Your task to perform on an android device: Open ESPN.com Image 0: 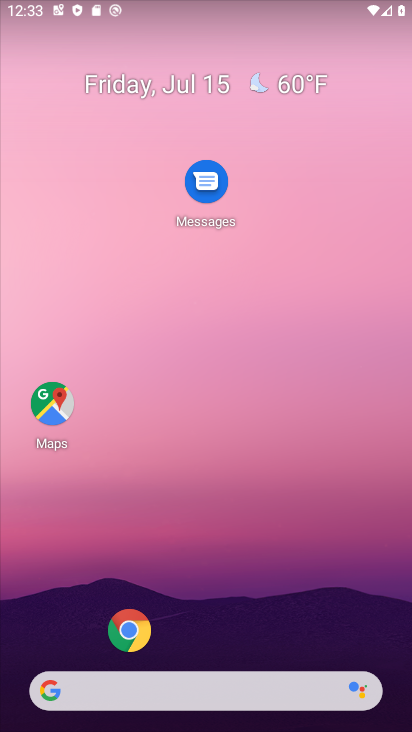
Step 0: drag from (40, 640) to (342, 5)
Your task to perform on an android device: Open ESPN.com Image 1: 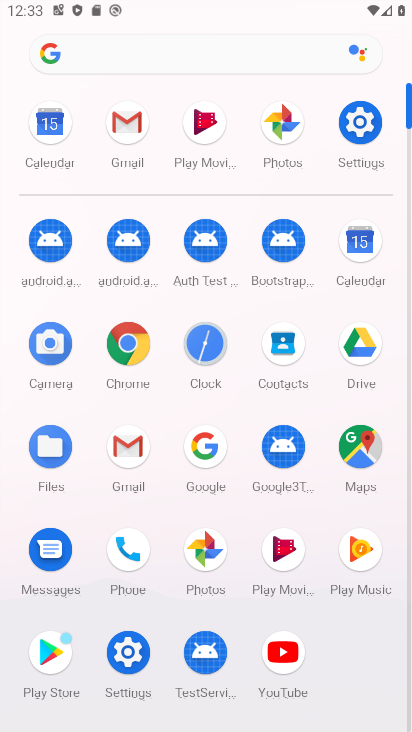
Step 1: click (113, 49)
Your task to perform on an android device: Open ESPN.com Image 2: 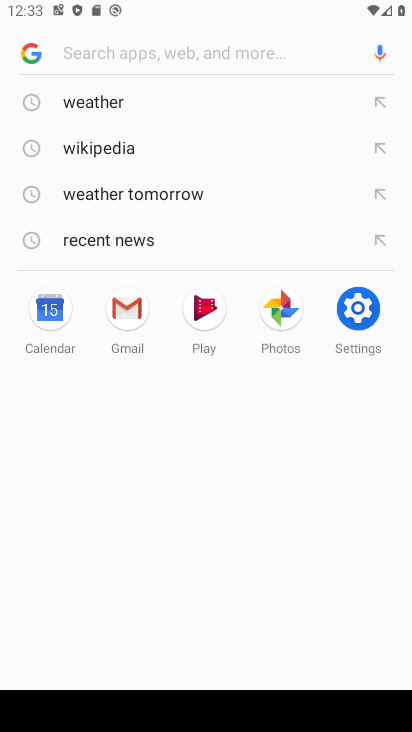
Step 2: type "ESPN.com"
Your task to perform on an android device: Open ESPN.com Image 3: 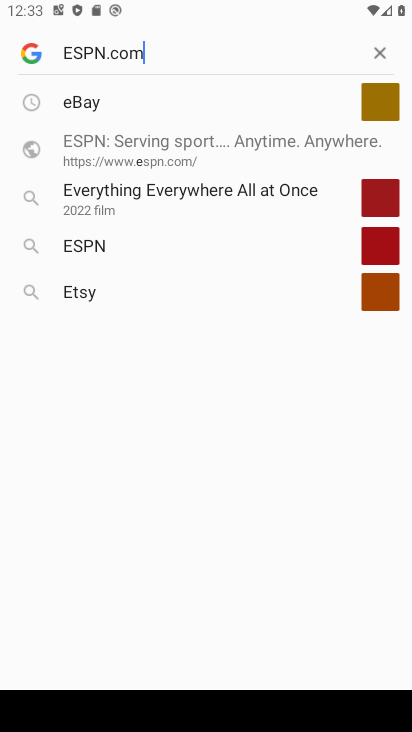
Step 3: type ""
Your task to perform on an android device: Open ESPN.com Image 4: 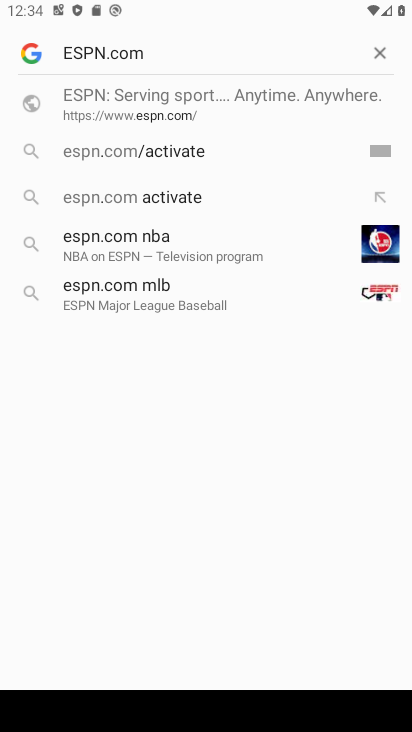
Step 4: type ""
Your task to perform on an android device: Open ESPN.com Image 5: 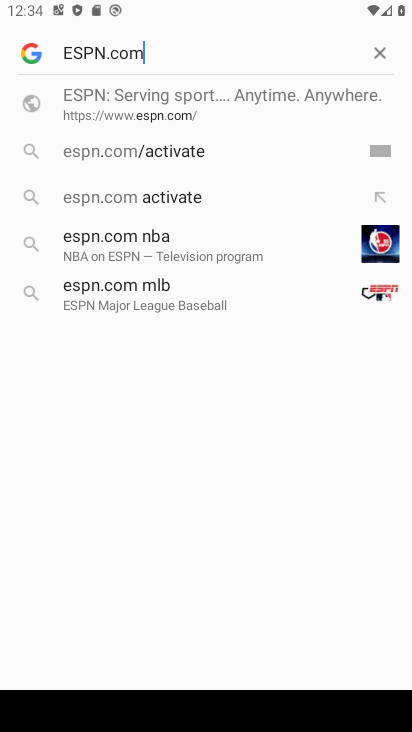
Step 5: type ""
Your task to perform on an android device: Open ESPN.com Image 6: 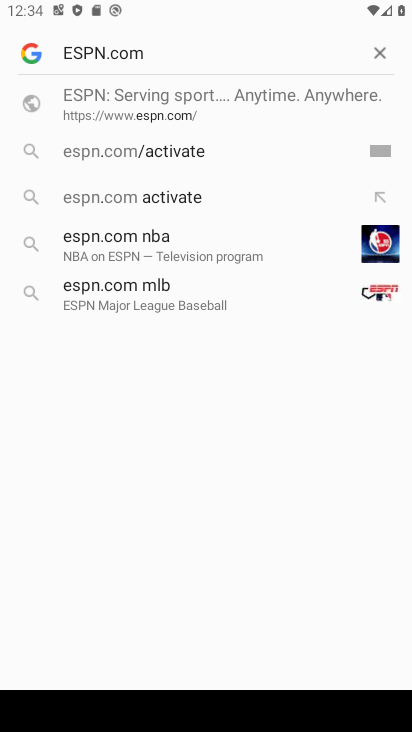
Step 6: task complete